Your task to perform on an android device: turn off notifications in google photos Image 0: 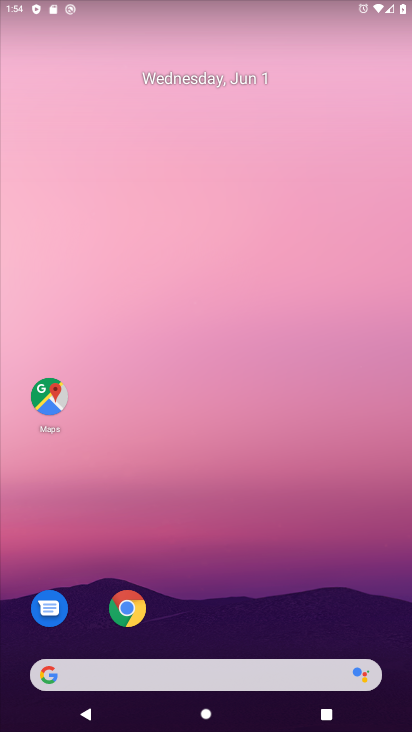
Step 0: drag from (133, 621) to (219, 140)
Your task to perform on an android device: turn off notifications in google photos Image 1: 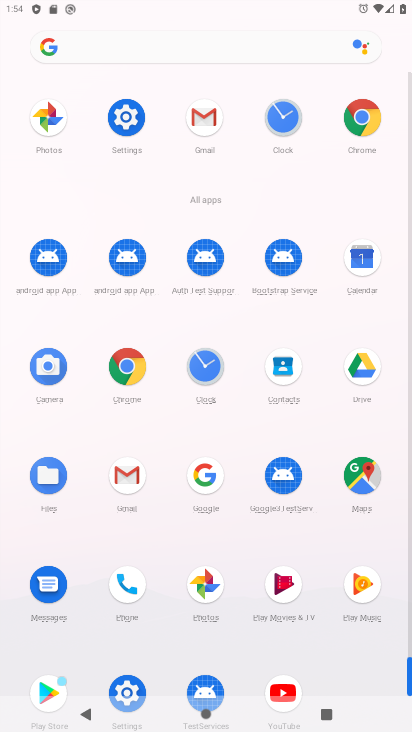
Step 1: click (204, 580)
Your task to perform on an android device: turn off notifications in google photos Image 2: 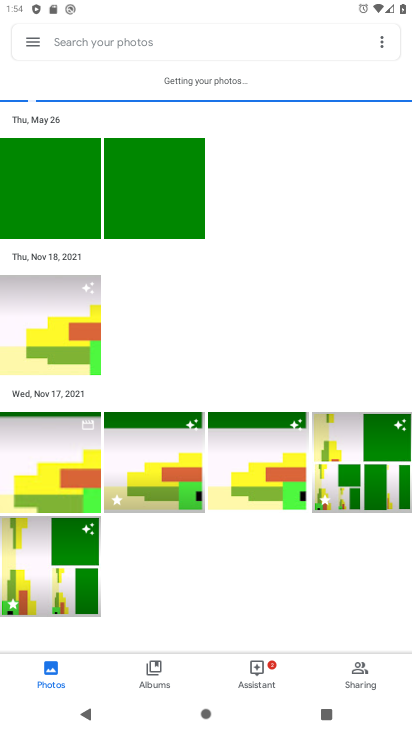
Step 2: click (39, 42)
Your task to perform on an android device: turn off notifications in google photos Image 3: 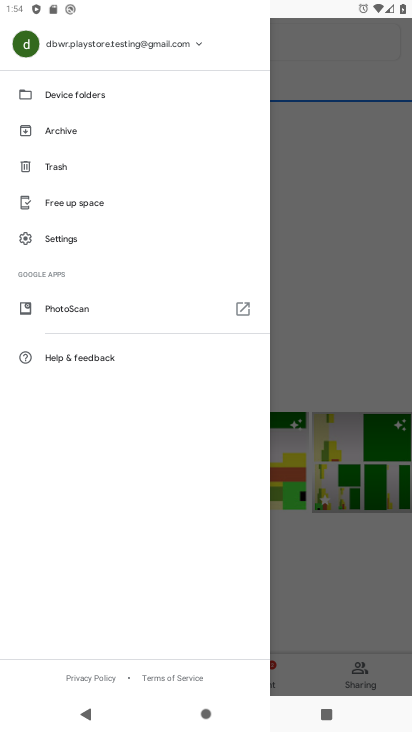
Step 3: click (112, 241)
Your task to perform on an android device: turn off notifications in google photos Image 4: 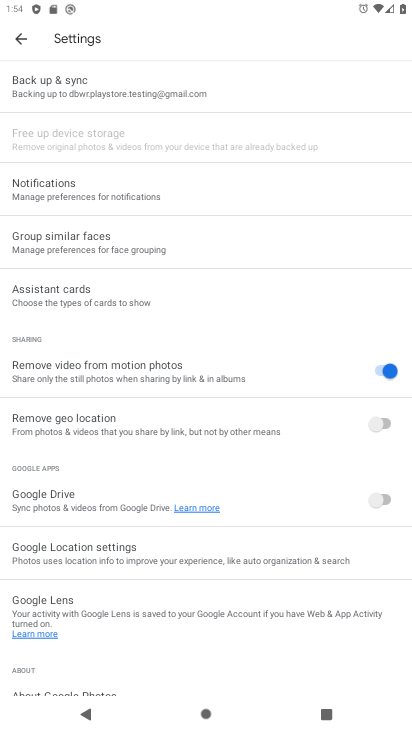
Step 4: click (135, 201)
Your task to perform on an android device: turn off notifications in google photos Image 5: 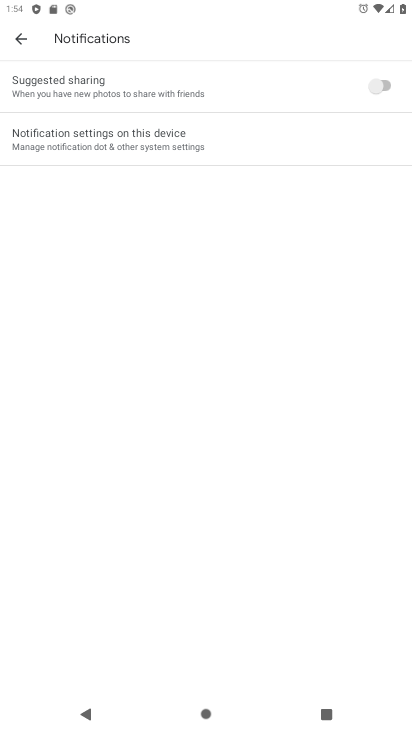
Step 5: click (220, 154)
Your task to perform on an android device: turn off notifications in google photos Image 6: 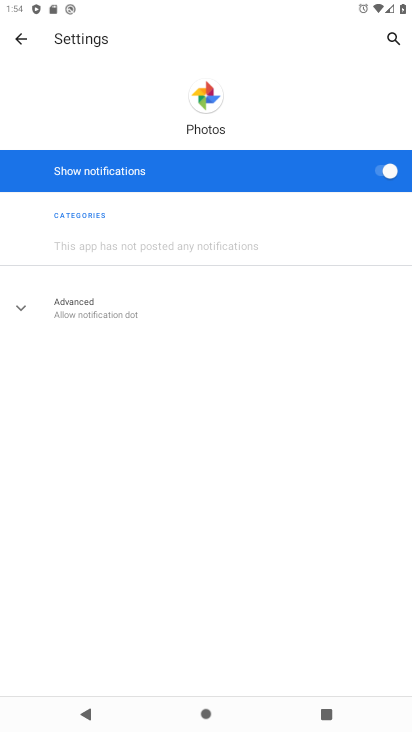
Step 6: click (376, 168)
Your task to perform on an android device: turn off notifications in google photos Image 7: 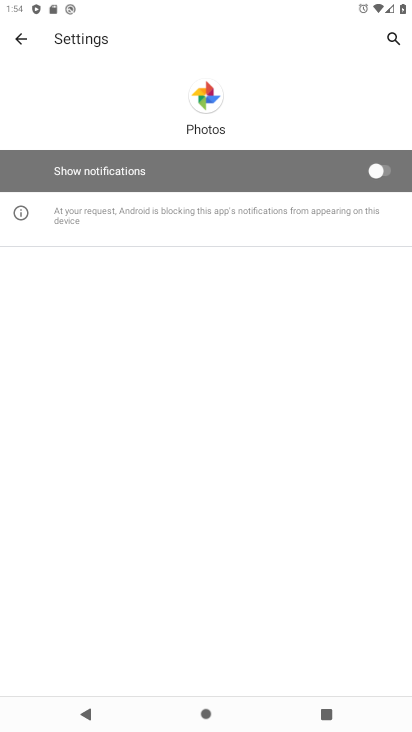
Step 7: task complete